Your task to perform on an android device: Open location settings Image 0: 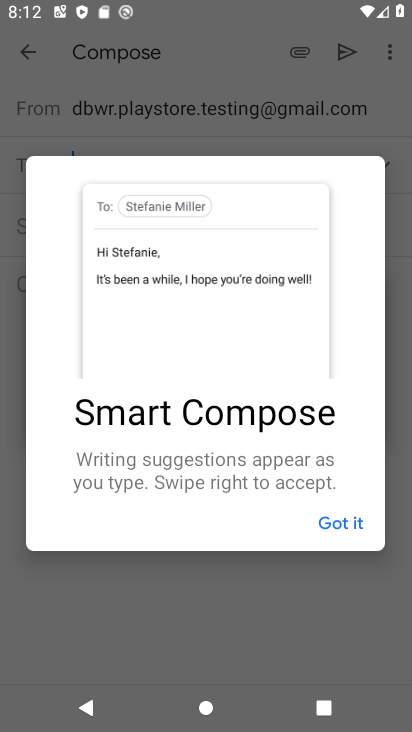
Step 0: press home button
Your task to perform on an android device: Open location settings Image 1: 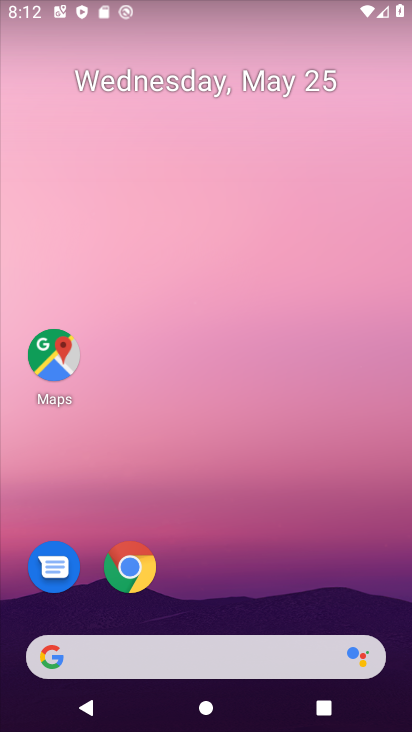
Step 1: drag from (251, 577) to (260, 90)
Your task to perform on an android device: Open location settings Image 2: 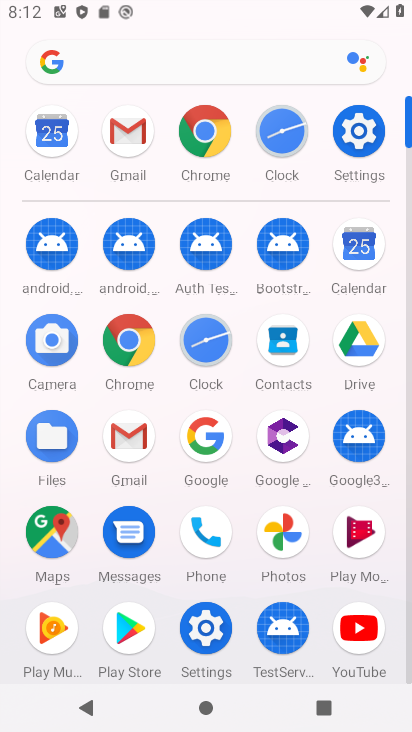
Step 2: click (354, 147)
Your task to perform on an android device: Open location settings Image 3: 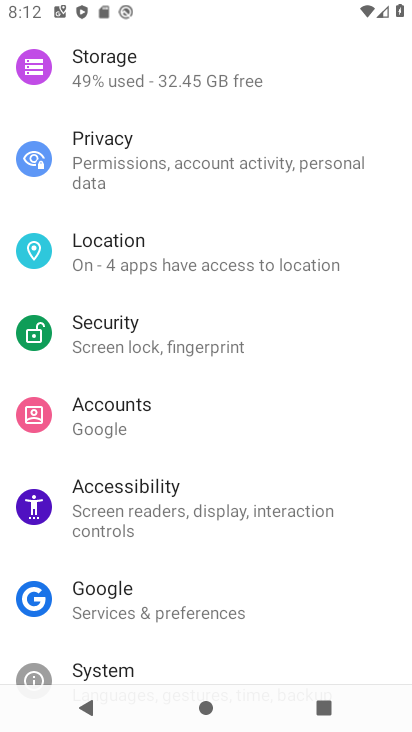
Step 3: click (161, 155)
Your task to perform on an android device: Open location settings Image 4: 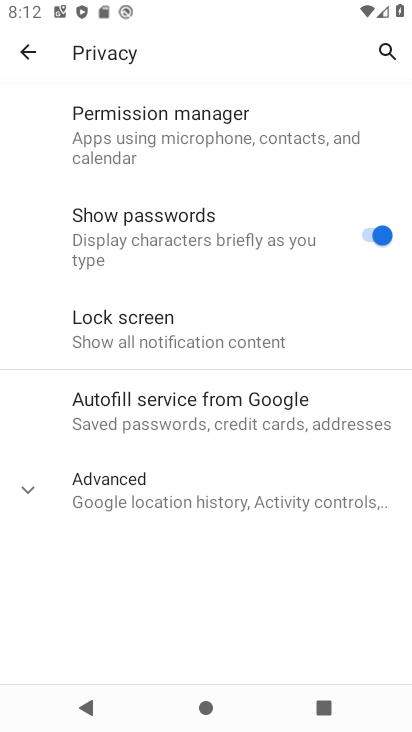
Step 4: click (42, 58)
Your task to perform on an android device: Open location settings Image 5: 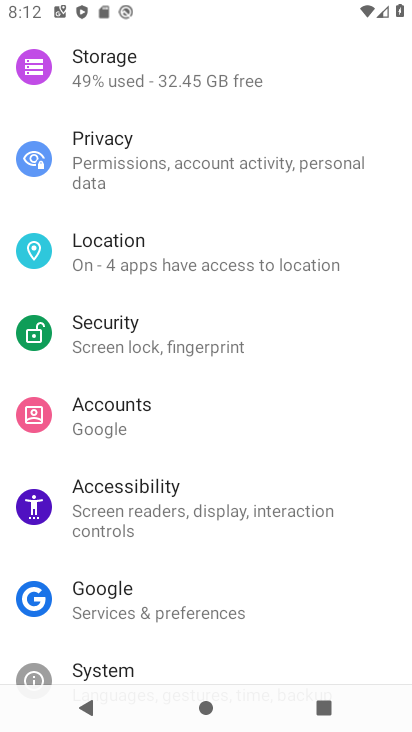
Step 5: click (189, 265)
Your task to perform on an android device: Open location settings Image 6: 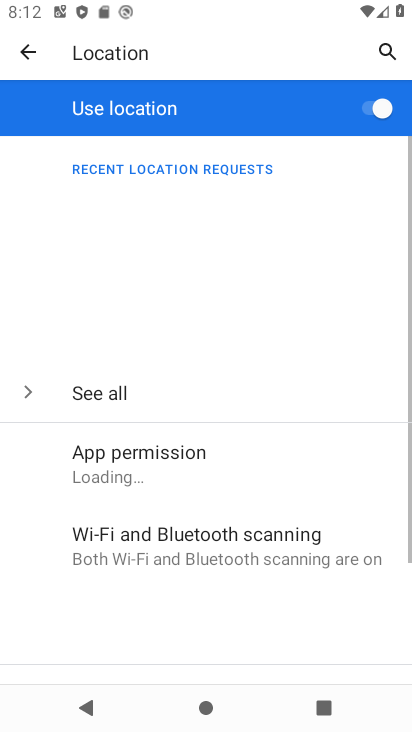
Step 6: task complete